Your task to perform on an android device: change the clock display to analog Image 0: 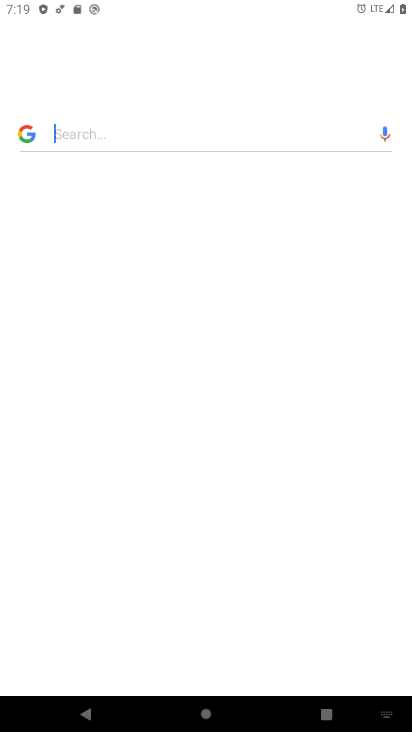
Step 0: click (63, 616)
Your task to perform on an android device: change the clock display to analog Image 1: 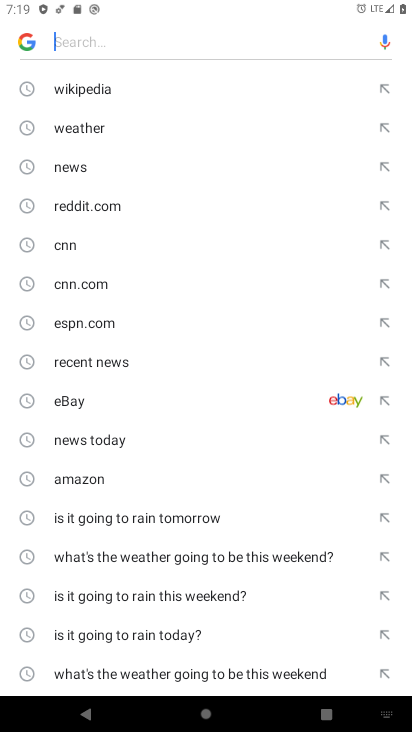
Step 1: press home button
Your task to perform on an android device: change the clock display to analog Image 2: 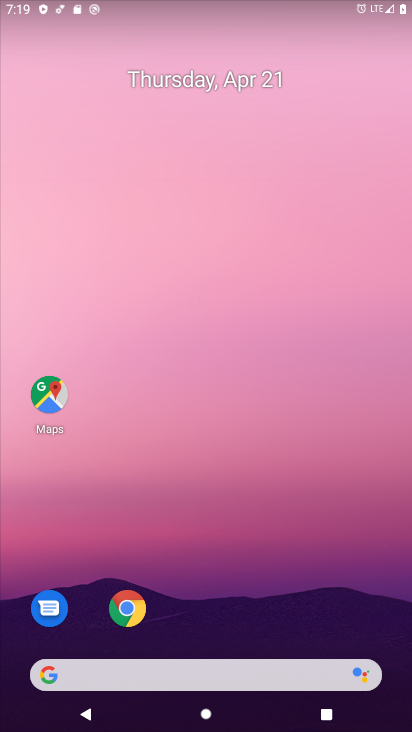
Step 2: drag from (201, 539) to (206, 224)
Your task to perform on an android device: change the clock display to analog Image 3: 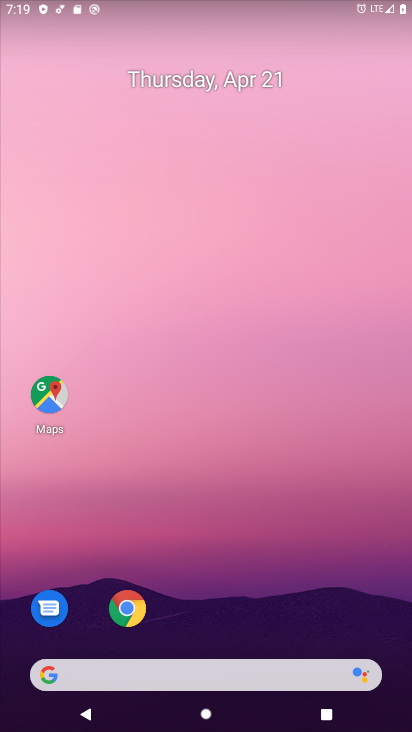
Step 3: drag from (234, 283) to (250, 157)
Your task to perform on an android device: change the clock display to analog Image 4: 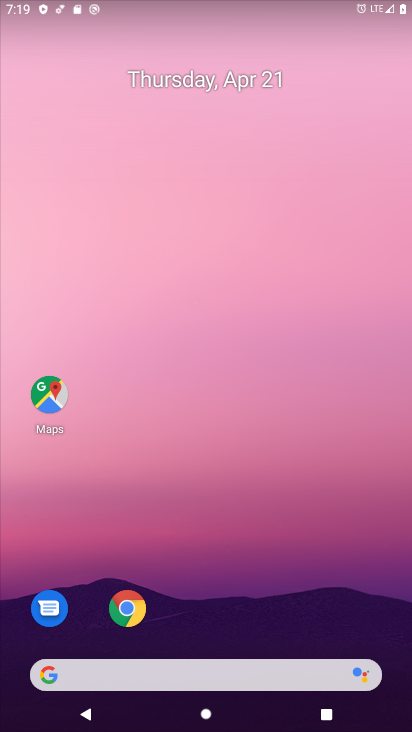
Step 4: drag from (232, 552) to (241, 143)
Your task to perform on an android device: change the clock display to analog Image 5: 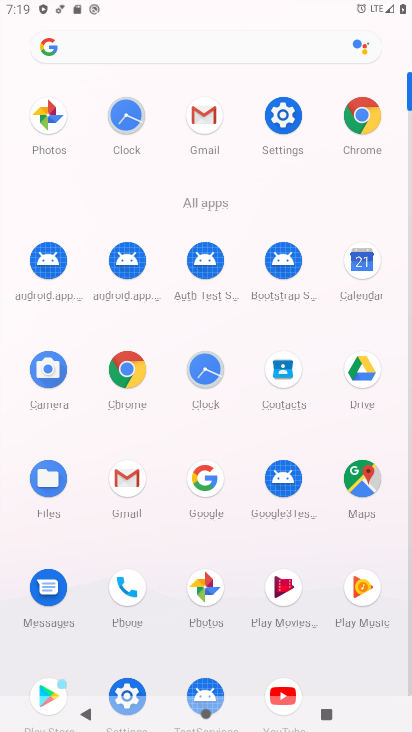
Step 5: click (207, 371)
Your task to perform on an android device: change the clock display to analog Image 6: 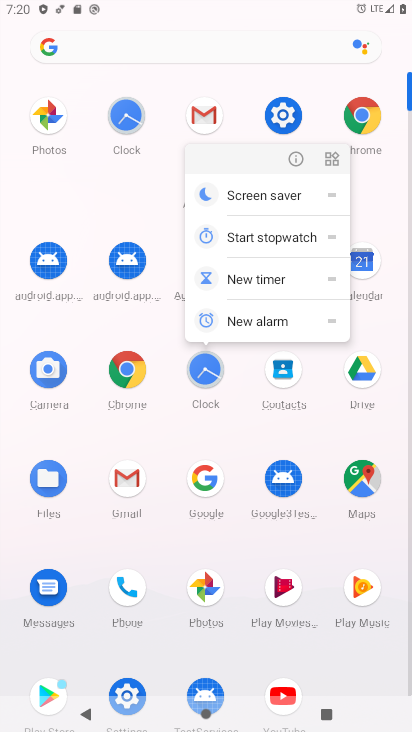
Step 6: click (213, 375)
Your task to perform on an android device: change the clock display to analog Image 7: 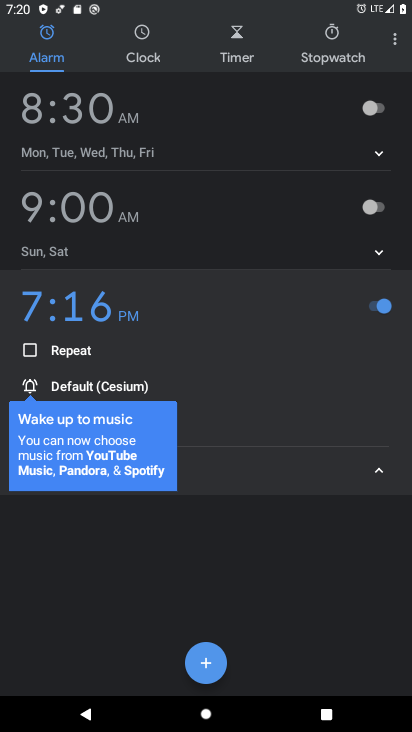
Step 7: click (393, 42)
Your task to perform on an android device: change the clock display to analog Image 8: 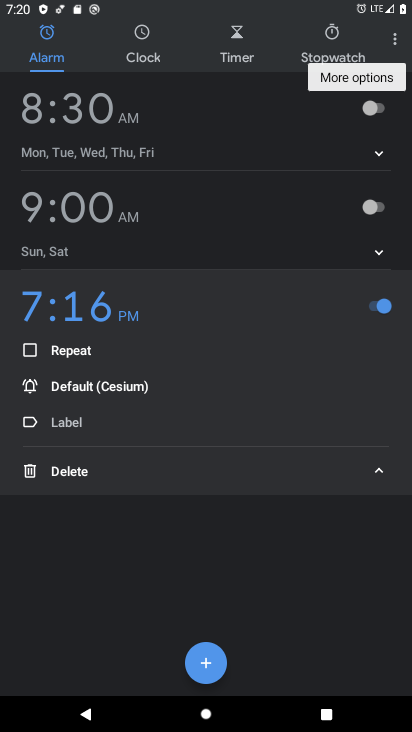
Step 8: click (398, 42)
Your task to perform on an android device: change the clock display to analog Image 9: 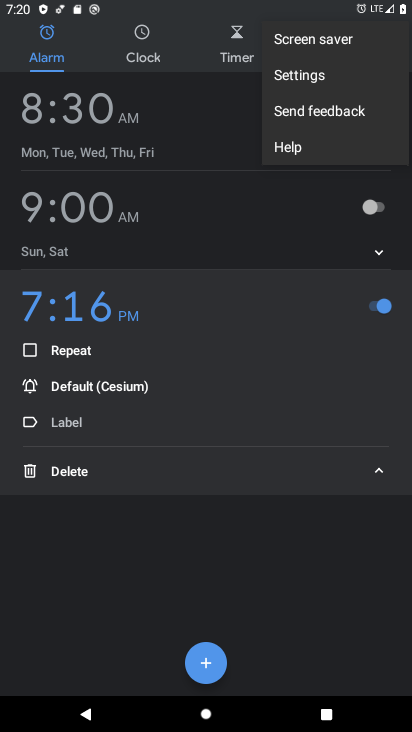
Step 9: click (337, 76)
Your task to perform on an android device: change the clock display to analog Image 10: 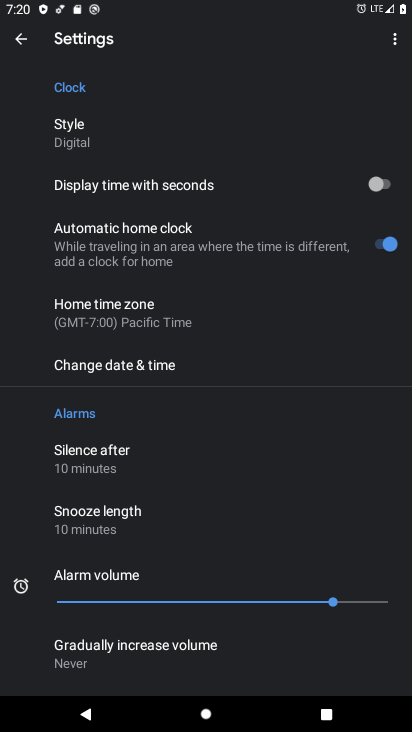
Step 10: click (84, 132)
Your task to perform on an android device: change the clock display to analog Image 11: 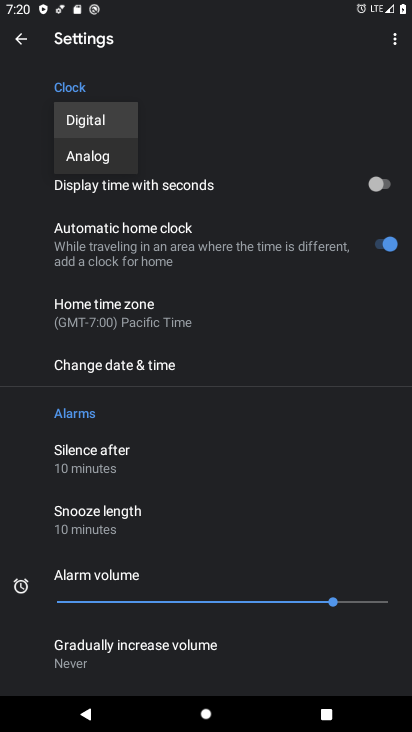
Step 11: click (89, 158)
Your task to perform on an android device: change the clock display to analog Image 12: 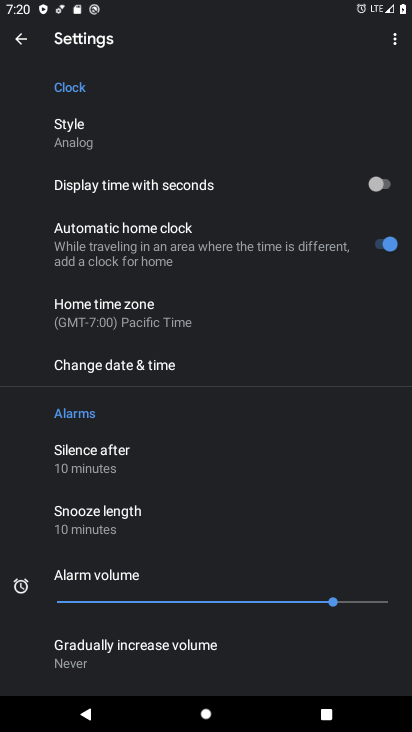
Step 12: task complete